Your task to perform on an android device: find photos in the google photos app Image 0: 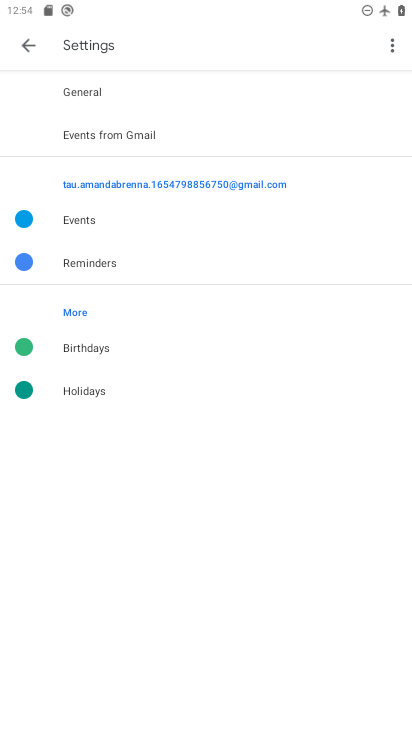
Step 0: press home button
Your task to perform on an android device: find photos in the google photos app Image 1: 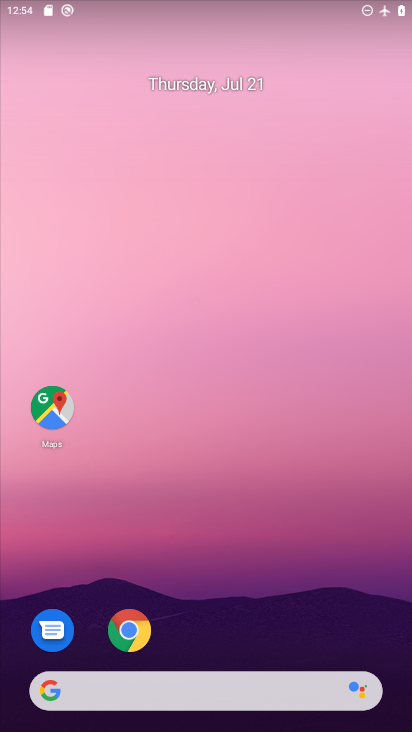
Step 1: drag from (383, 653) to (331, 292)
Your task to perform on an android device: find photos in the google photos app Image 2: 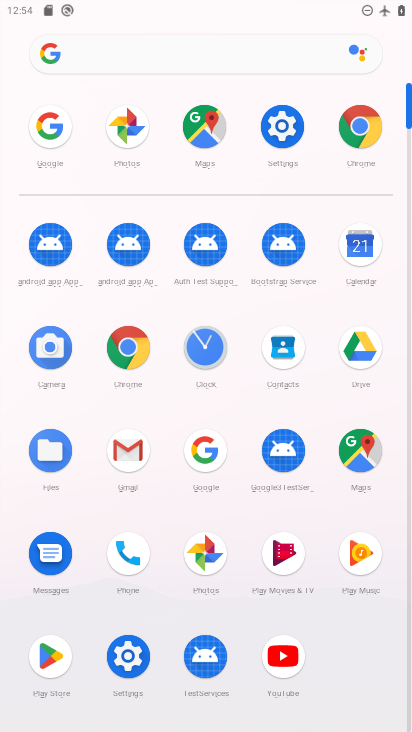
Step 2: click (212, 550)
Your task to perform on an android device: find photos in the google photos app Image 3: 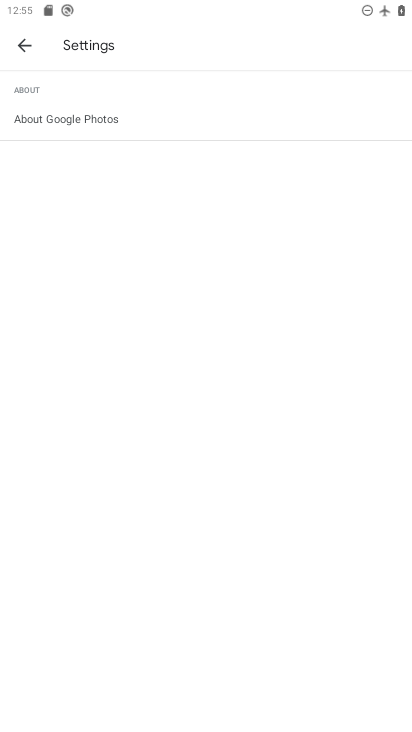
Step 3: click (18, 40)
Your task to perform on an android device: find photos in the google photos app Image 4: 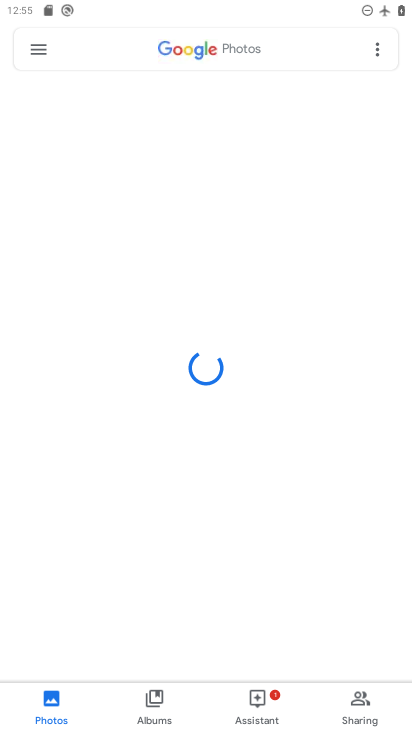
Step 4: click (49, 700)
Your task to perform on an android device: find photos in the google photos app Image 5: 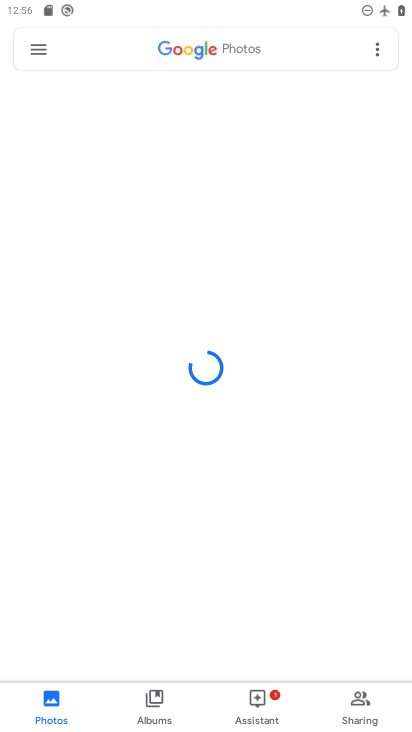
Step 5: task complete